Your task to perform on an android device: open chrome and create a bookmark for the current page Image 0: 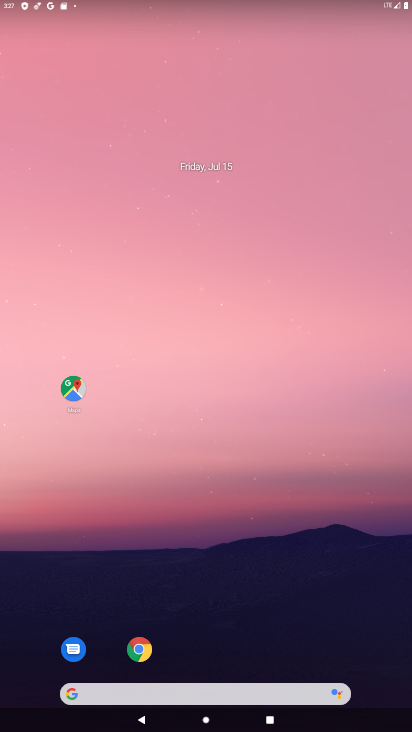
Step 0: click (140, 655)
Your task to perform on an android device: open chrome and create a bookmark for the current page Image 1: 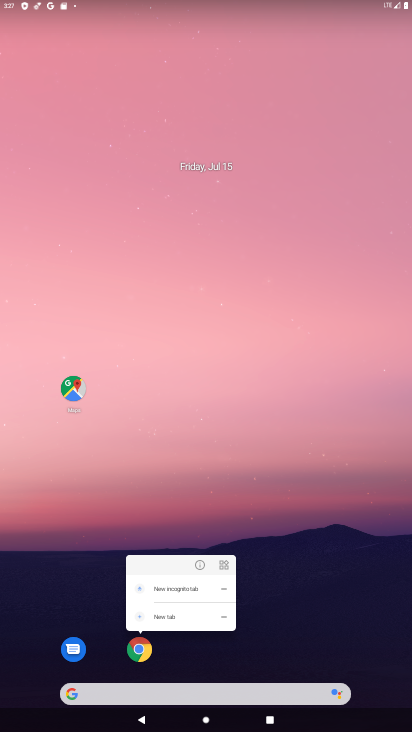
Step 1: click (137, 652)
Your task to perform on an android device: open chrome and create a bookmark for the current page Image 2: 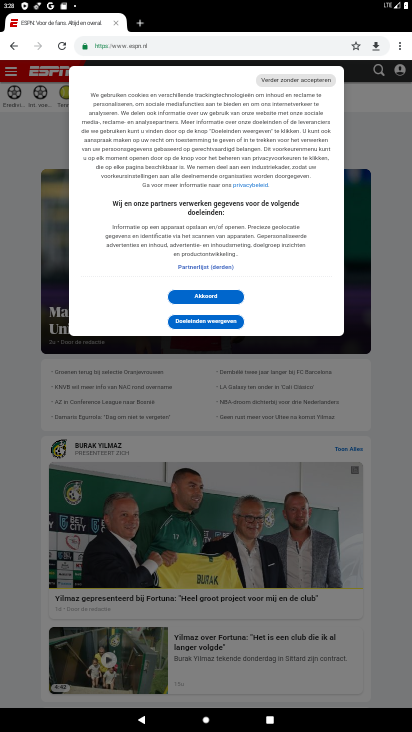
Step 2: click (141, 23)
Your task to perform on an android device: open chrome and create a bookmark for the current page Image 3: 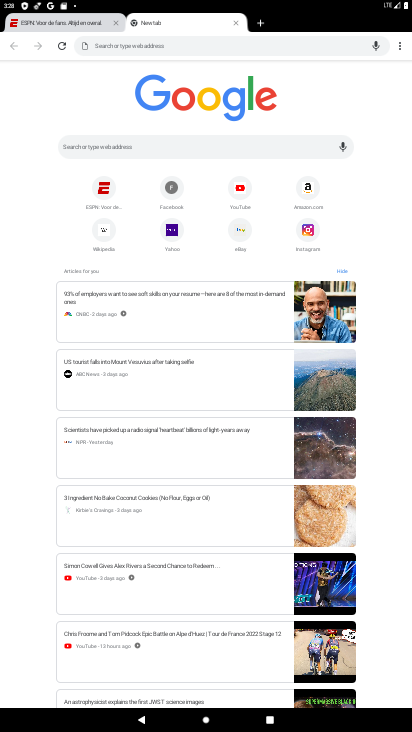
Step 3: click (129, 635)
Your task to perform on an android device: open chrome and create a bookmark for the current page Image 4: 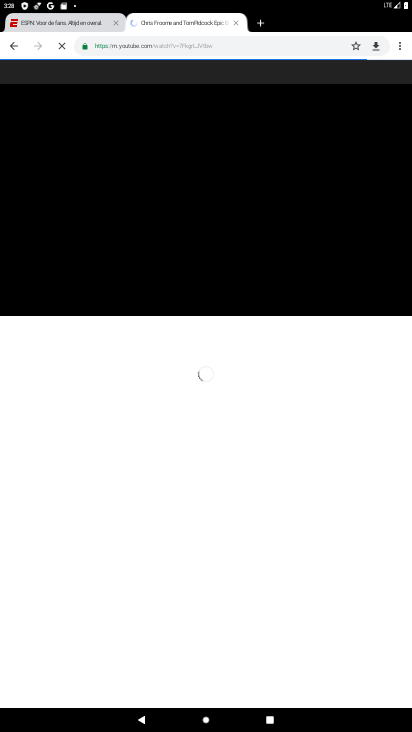
Step 4: click (355, 45)
Your task to perform on an android device: open chrome and create a bookmark for the current page Image 5: 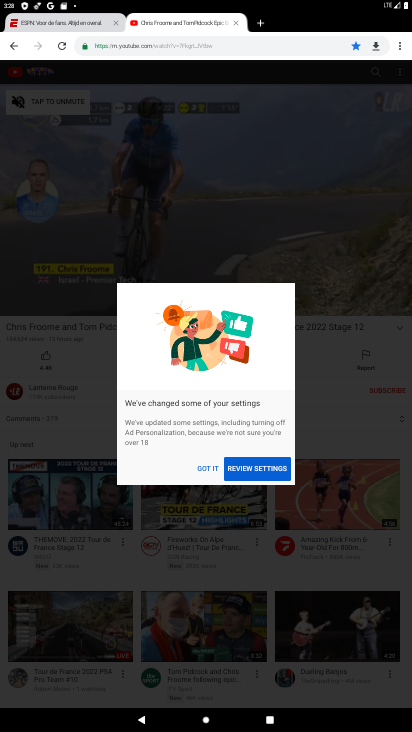
Step 5: task complete